Your task to perform on an android device: What's on my calendar tomorrow? Image 0: 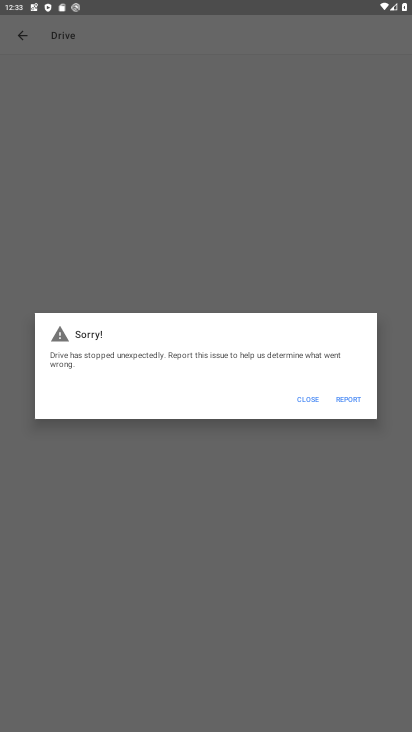
Step 0: press home button
Your task to perform on an android device: What's on my calendar tomorrow? Image 1: 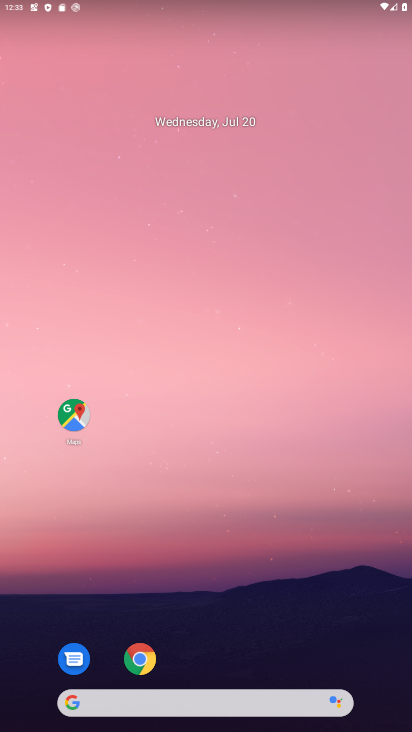
Step 1: drag from (267, 567) to (295, 360)
Your task to perform on an android device: What's on my calendar tomorrow? Image 2: 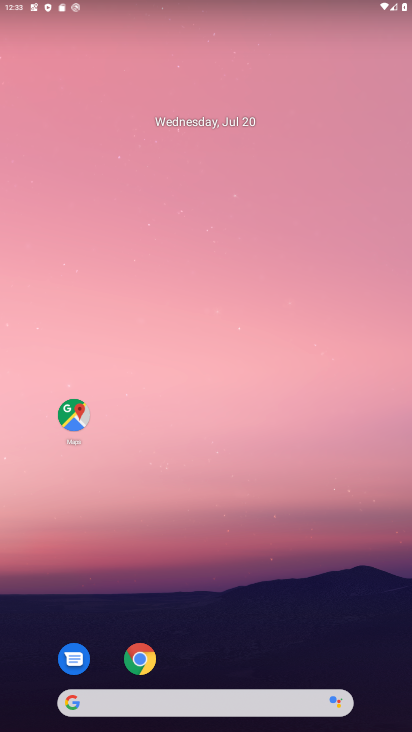
Step 2: drag from (308, 518) to (333, 246)
Your task to perform on an android device: What's on my calendar tomorrow? Image 3: 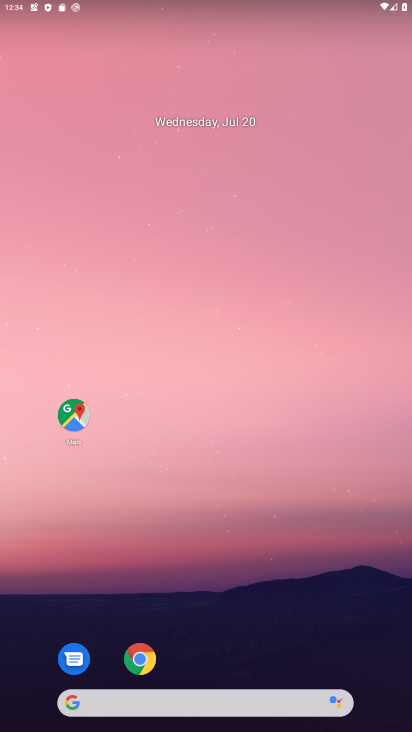
Step 3: drag from (320, 606) to (360, 290)
Your task to perform on an android device: What's on my calendar tomorrow? Image 4: 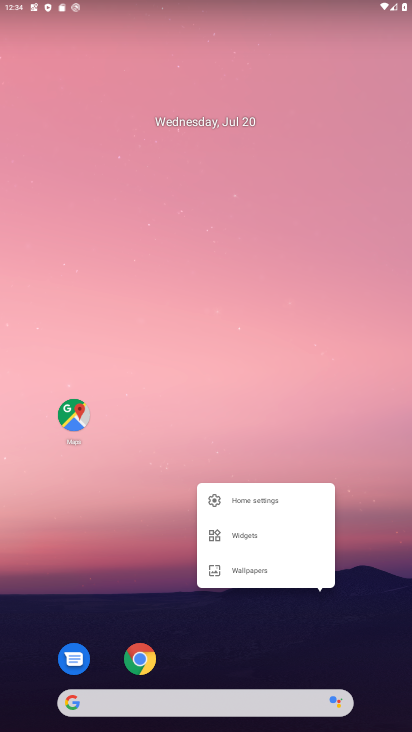
Step 4: click (208, 340)
Your task to perform on an android device: What's on my calendar tomorrow? Image 5: 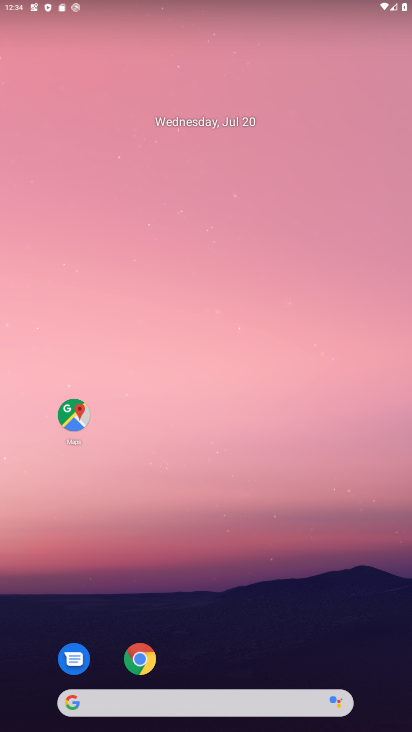
Step 5: drag from (244, 597) to (137, 123)
Your task to perform on an android device: What's on my calendar tomorrow? Image 6: 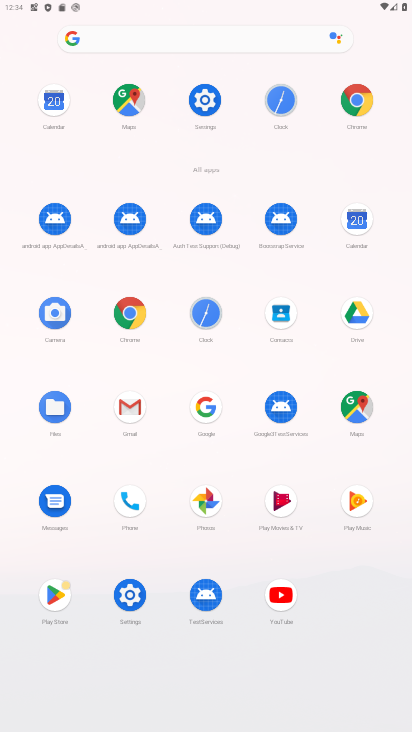
Step 6: click (351, 225)
Your task to perform on an android device: What's on my calendar tomorrow? Image 7: 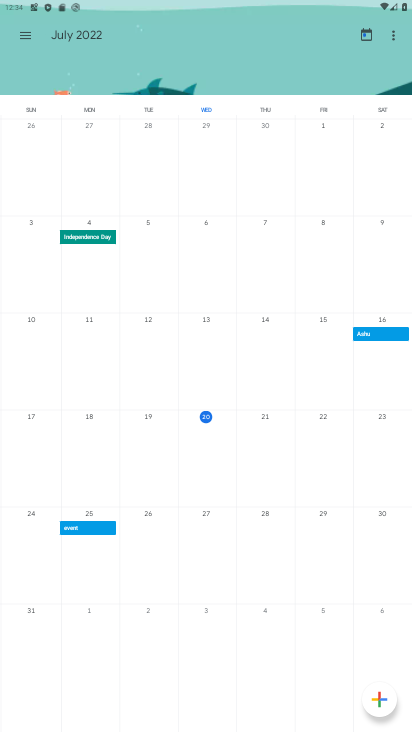
Step 7: task complete